Your task to perform on an android device: toggle priority inbox in the gmail app Image 0: 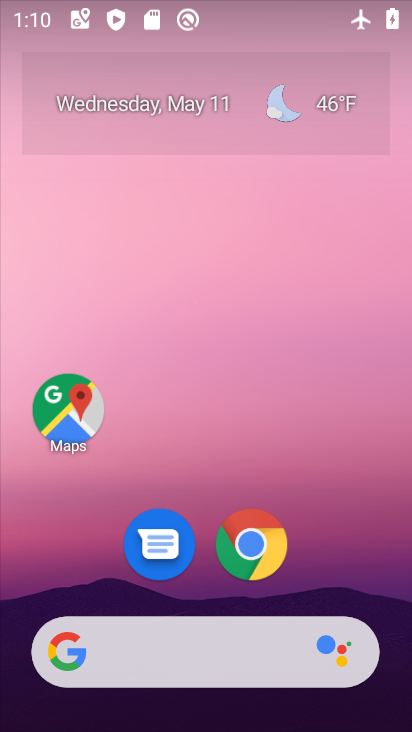
Step 0: drag from (402, 659) to (302, 58)
Your task to perform on an android device: toggle priority inbox in the gmail app Image 1: 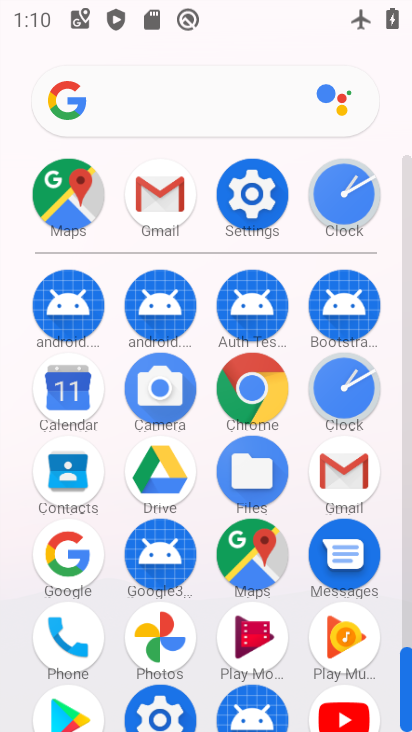
Step 1: click (343, 470)
Your task to perform on an android device: toggle priority inbox in the gmail app Image 2: 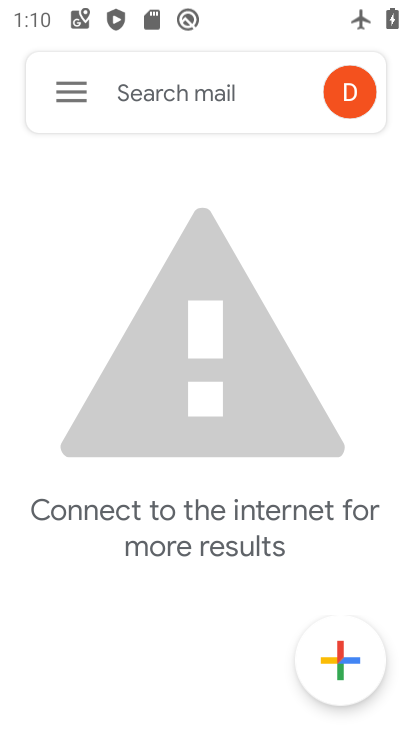
Step 2: click (65, 91)
Your task to perform on an android device: toggle priority inbox in the gmail app Image 3: 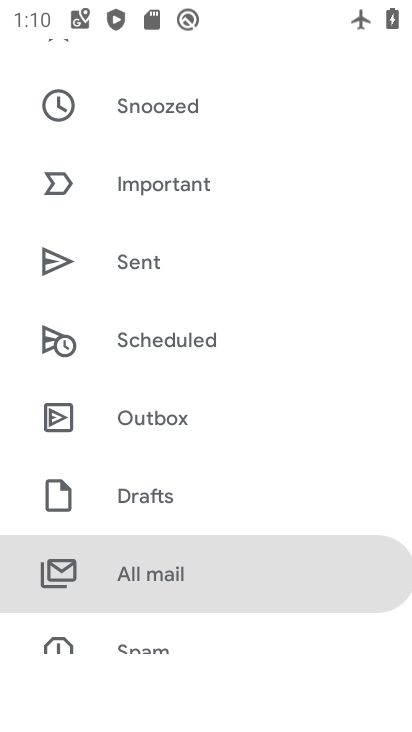
Step 3: drag from (268, 489) to (282, 75)
Your task to perform on an android device: toggle priority inbox in the gmail app Image 4: 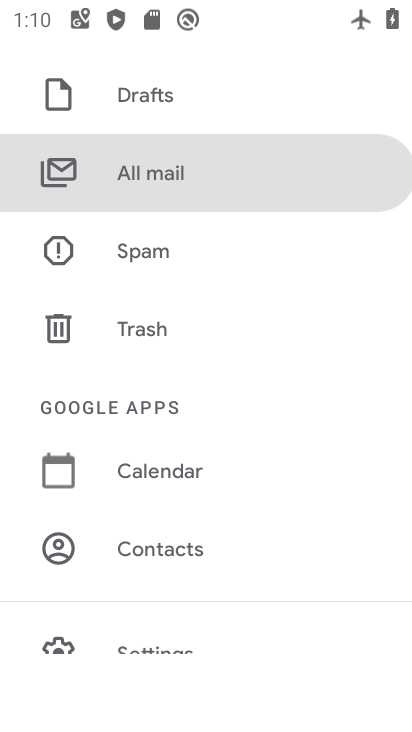
Step 4: drag from (243, 561) to (257, 105)
Your task to perform on an android device: toggle priority inbox in the gmail app Image 5: 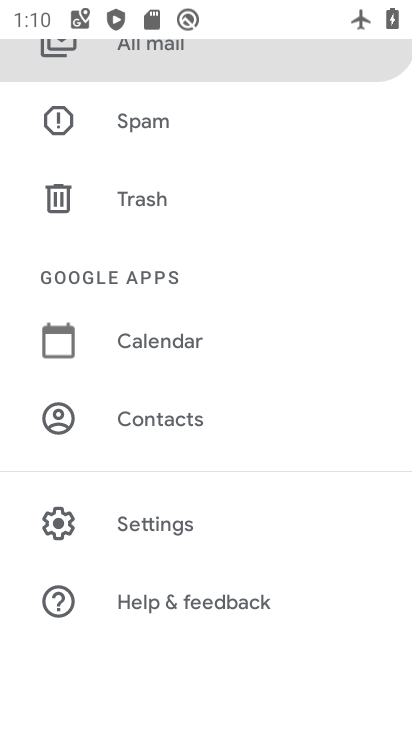
Step 5: click (145, 527)
Your task to perform on an android device: toggle priority inbox in the gmail app Image 6: 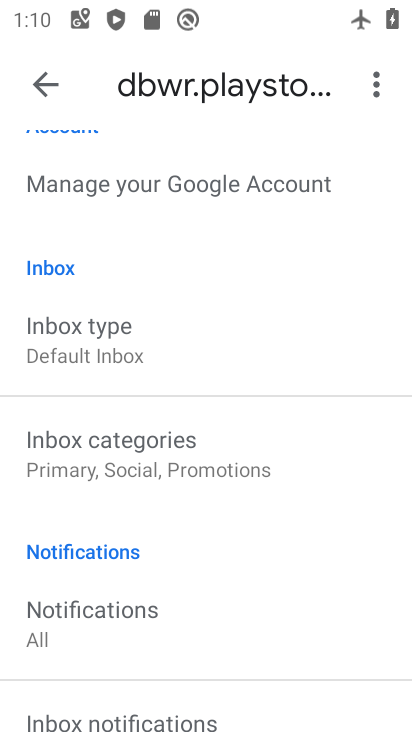
Step 6: click (88, 341)
Your task to perform on an android device: toggle priority inbox in the gmail app Image 7: 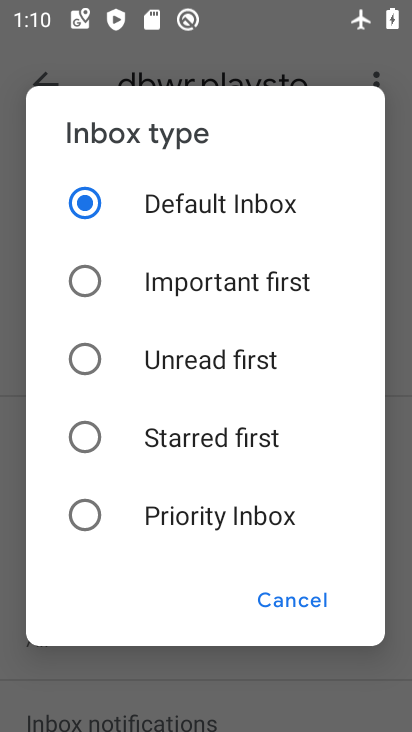
Step 7: click (82, 517)
Your task to perform on an android device: toggle priority inbox in the gmail app Image 8: 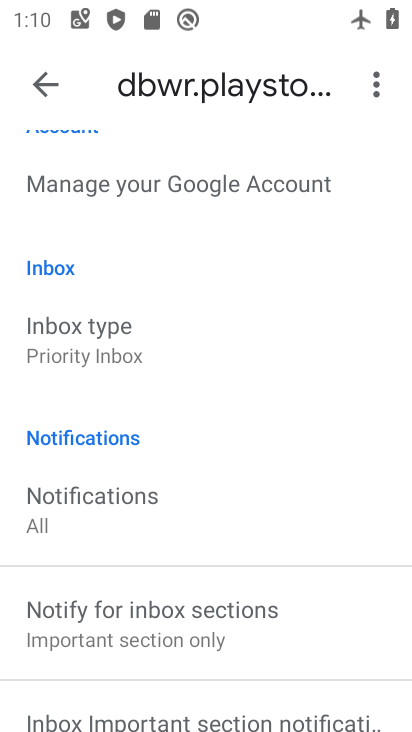
Step 8: task complete